Your task to perform on an android device: open chrome privacy settings Image 0: 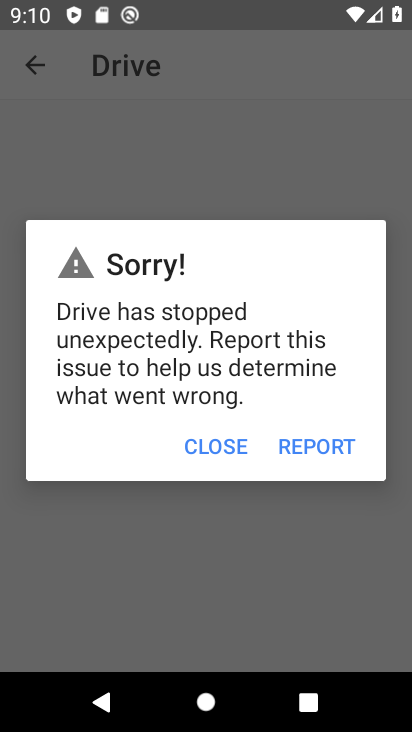
Step 0: press home button
Your task to perform on an android device: open chrome privacy settings Image 1: 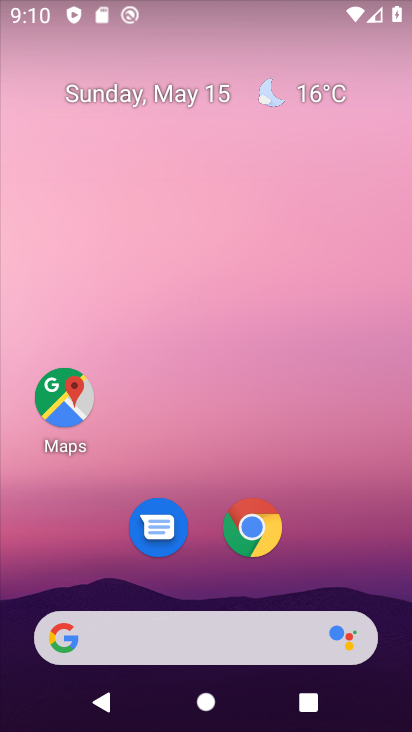
Step 1: drag from (203, 549) to (202, 92)
Your task to perform on an android device: open chrome privacy settings Image 2: 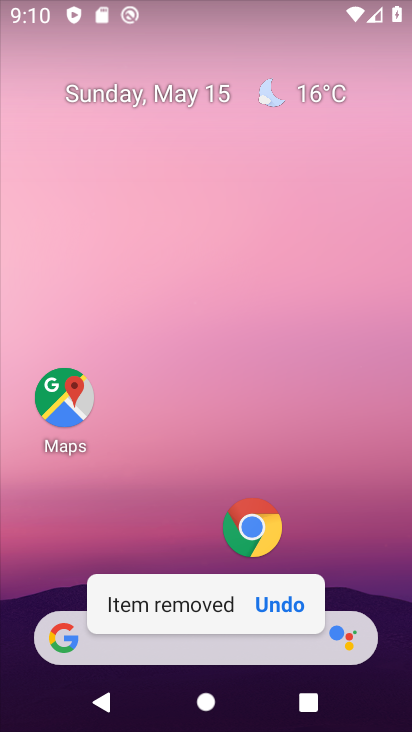
Step 2: drag from (360, 560) to (332, 5)
Your task to perform on an android device: open chrome privacy settings Image 3: 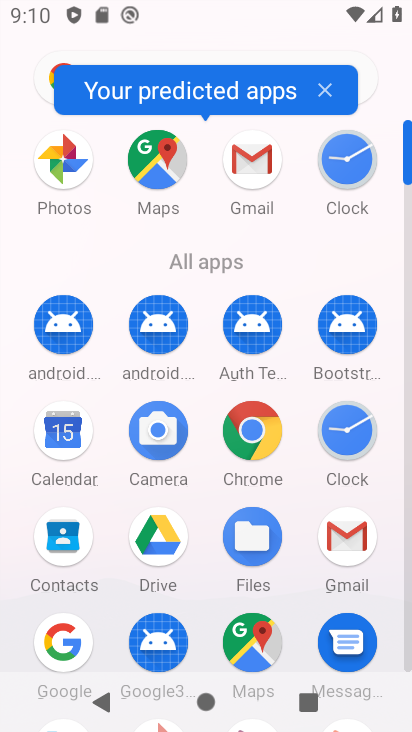
Step 3: drag from (203, 502) to (206, 16)
Your task to perform on an android device: open chrome privacy settings Image 4: 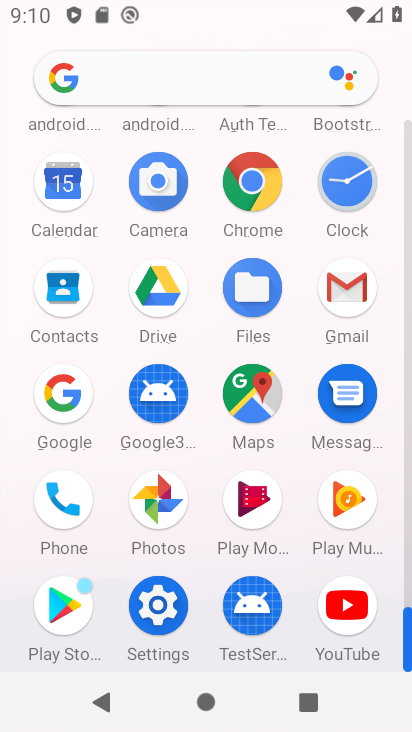
Step 4: click (165, 604)
Your task to perform on an android device: open chrome privacy settings Image 5: 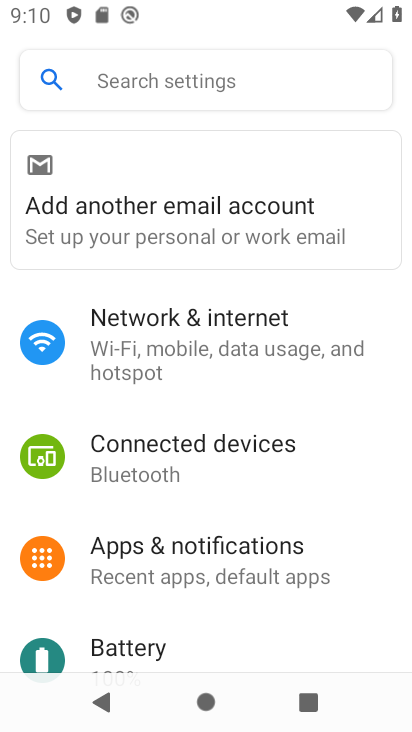
Step 5: drag from (165, 585) to (82, 0)
Your task to perform on an android device: open chrome privacy settings Image 6: 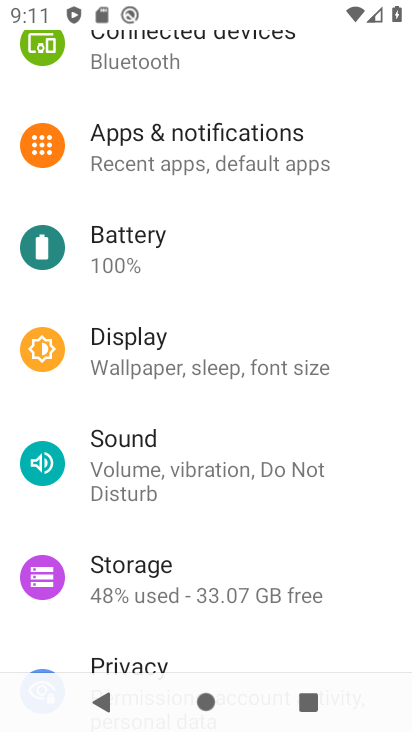
Step 6: click (147, 652)
Your task to perform on an android device: open chrome privacy settings Image 7: 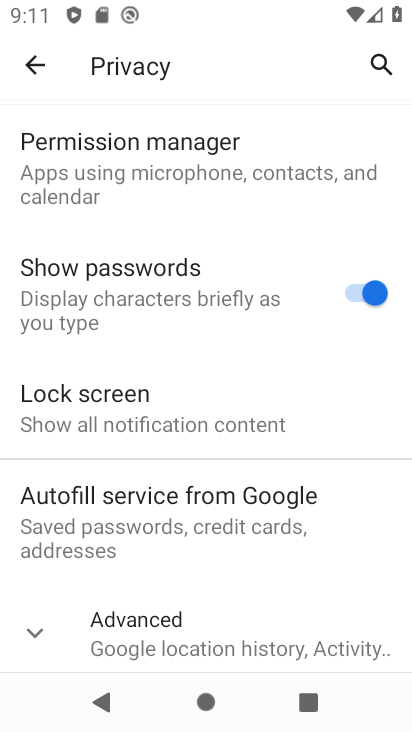
Step 7: click (34, 627)
Your task to perform on an android device: open chrome privacy settings Image 8: 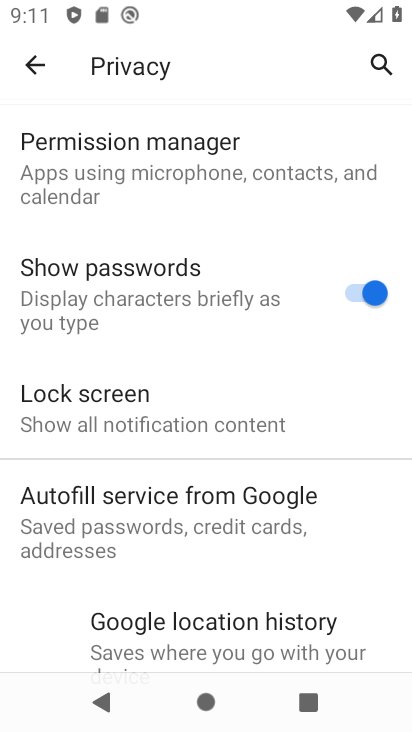
Step 8: task complete